Your task to perform on an android device: Go to location settings Image 0: 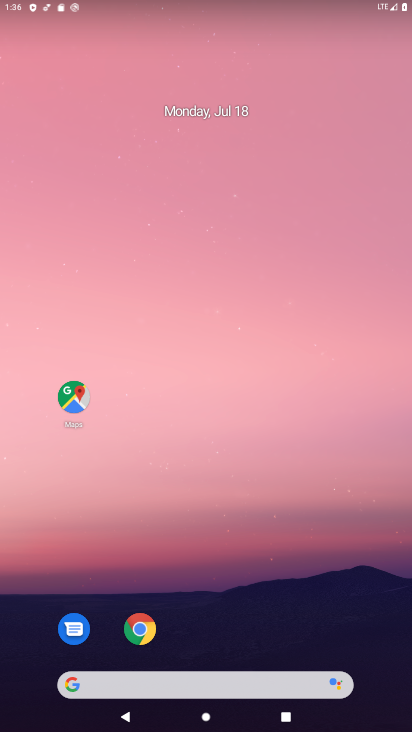
Step 0: press home button
Your task to perform on an android device: Go to location settings Image 1: 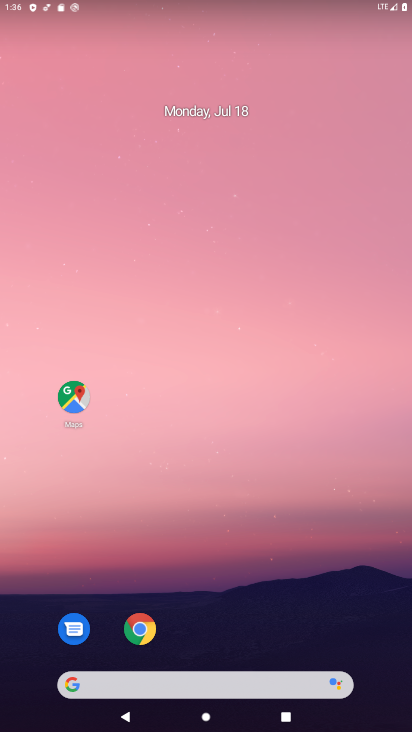
Step 1: drag from (212, 649) to (253, 46)
Your task to perform on an android device: Go to location settings Image 2: 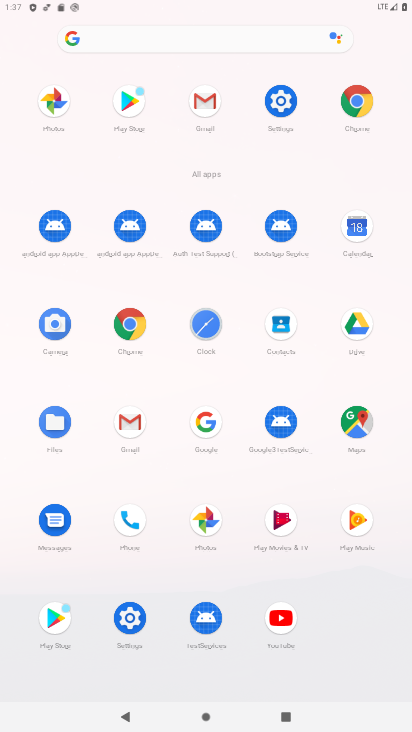
Step 2: click (279, 96)
Your task to perform on an android device: Go to location settings Image 3: 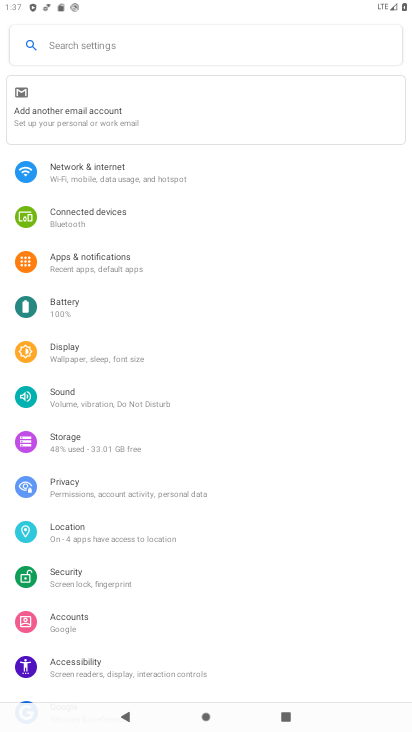
Step 3: click (101, 527)
Your task to perform on an android device: Go to location settings Image 4: 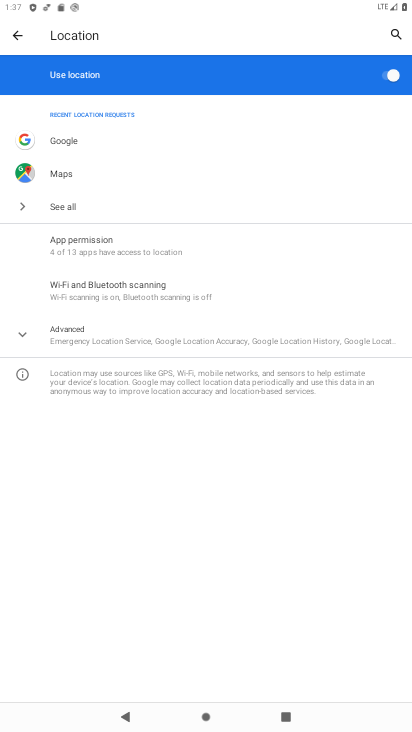
Step 4: click (22, 330)
Your task to perform on an android device: Go to location settings Image 5: 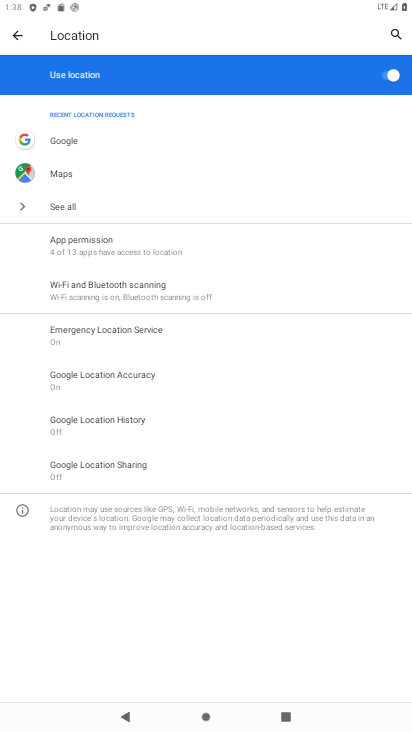
Step 5: task complete